Your task to perform on an android device: toggle notification dots Image 0: 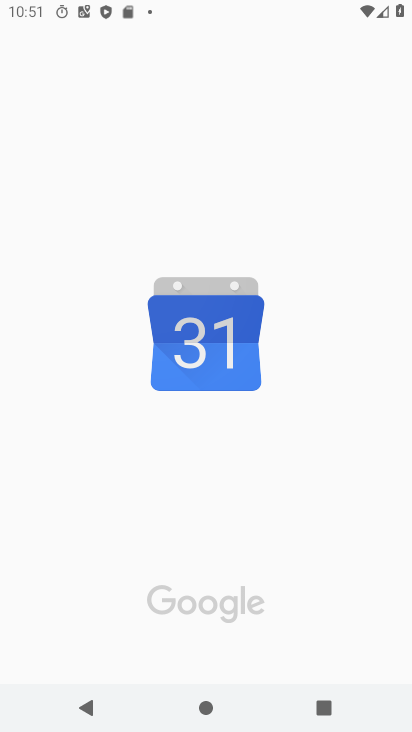
Step 0: drag from (275, 573) to (268, 199)
Your task to perform on an android device: toggle notification dots Image 1: 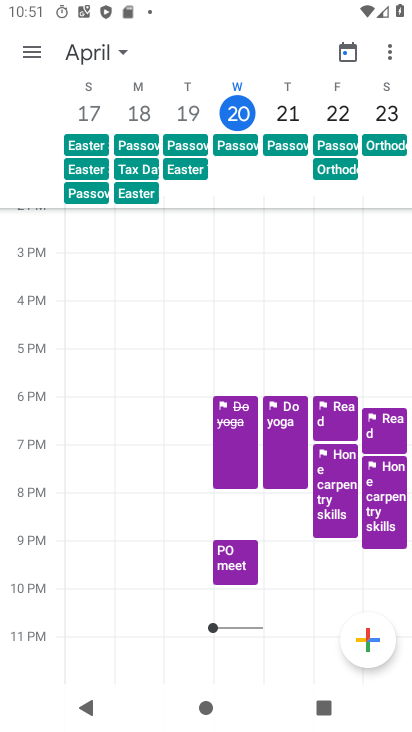
Step 1: press home button
Your task to perform on an android device: toggle notification dots Image 2: 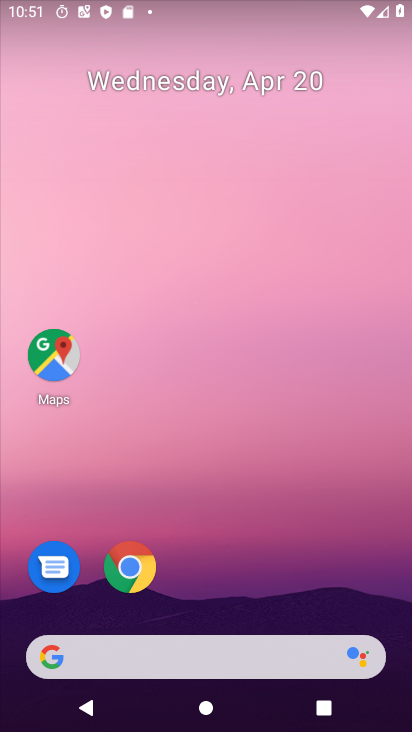
Step 2: drag from (247, 555) to (297, 197)
Your task to perform on an android device: toggle notification dots Image 3: 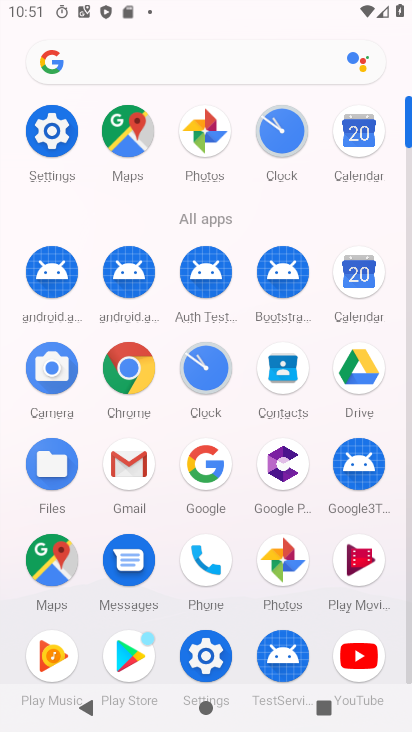
Step 3: click (196, 652)
Your task to perform on an android device: toggle notification dots Image 4: 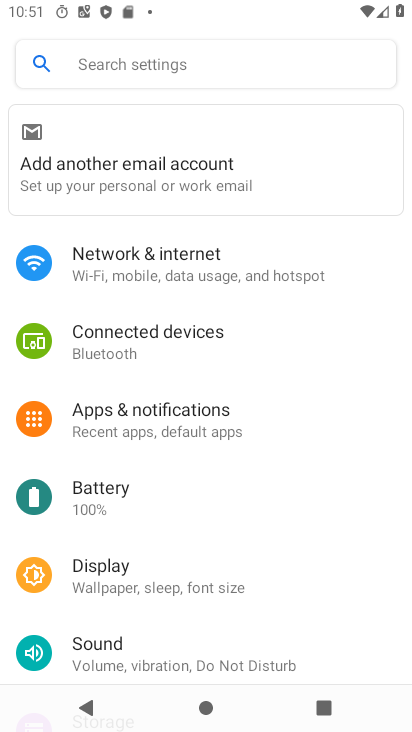
Step 4: click (177, 430)
Your task to perform on an android device: toggle notification dots Image 5: 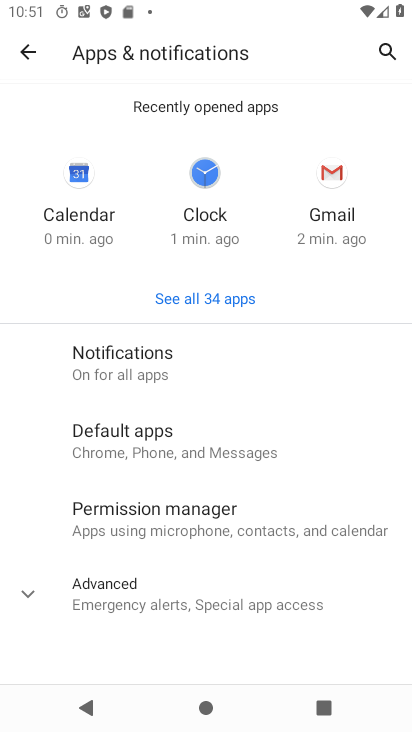
Step 5: click (179, 364)
Your task to perform on an android device: toggle notification dots Image 6: 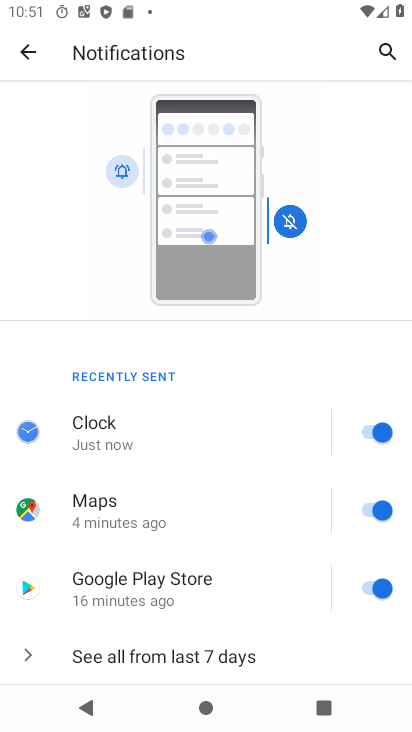
Step 6: drag from (169, 601) to (151, 262)
Your task to perform on an android device: toggle notification dots Image 7: 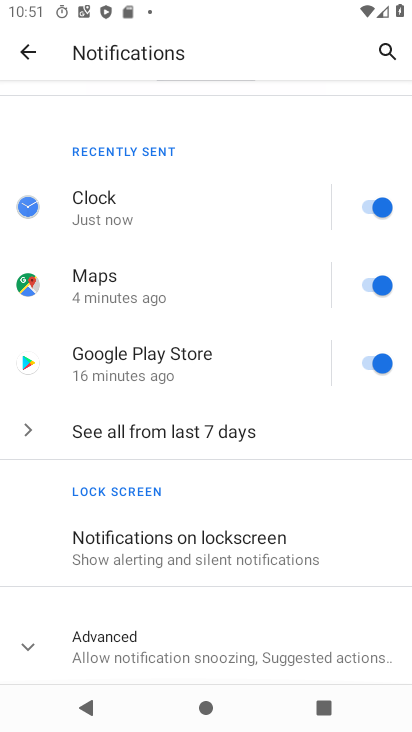
Step 7: drag from (195, 633) to (184, 306)
Your task to perform on an android device: toggle notification dots Image 8: 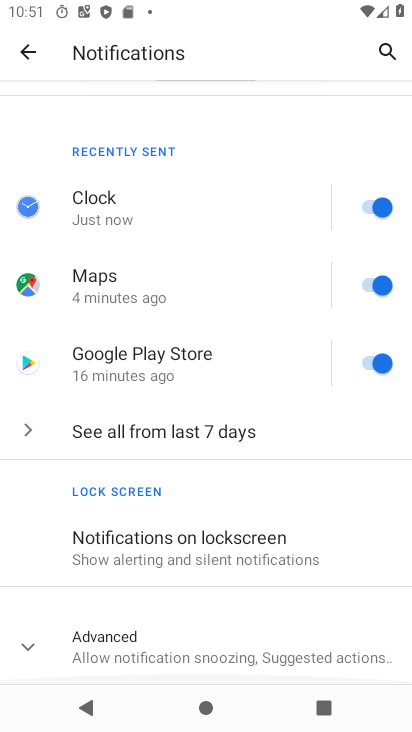
Step 8: click (186, 649)
Your task to perform on an android device: toggle notification dots Image 9: 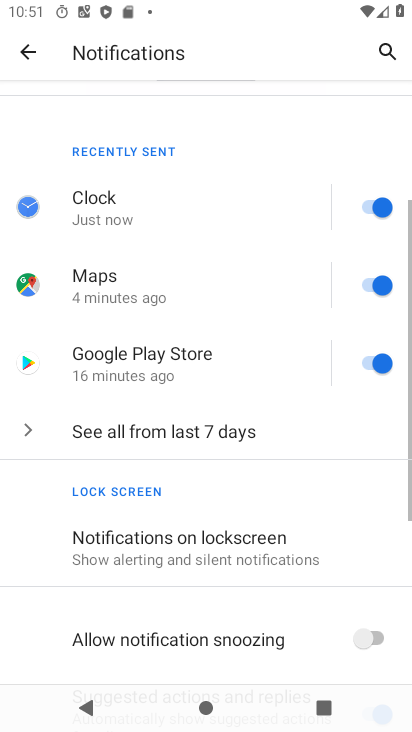
Step 9: drag from (180, 630) to (180, 369)
Your task to perform on an android device: toggle notification dots Image 10: 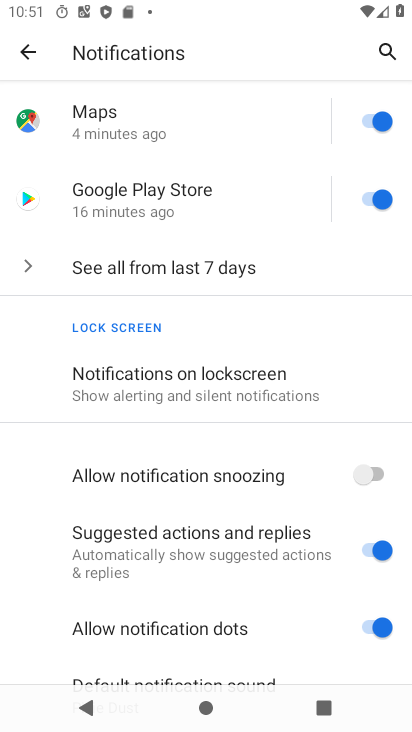
Step 10: click (374, 628)
Your task to perform on an android device: toggle notification dots Image 11: 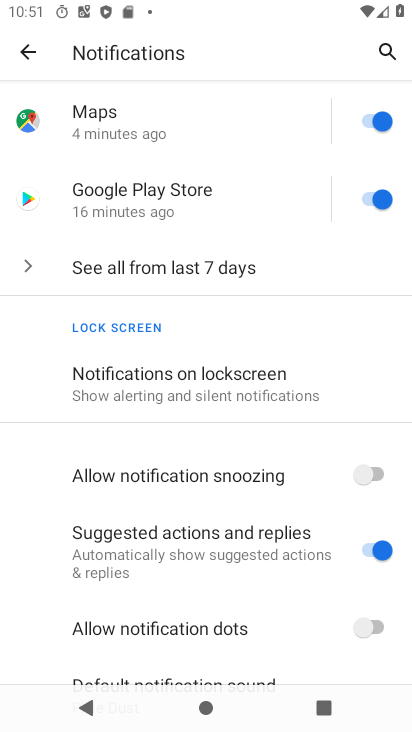
Step 11: task complete